Your task to perform on an android device: turn off improve location accuracy Image 0: 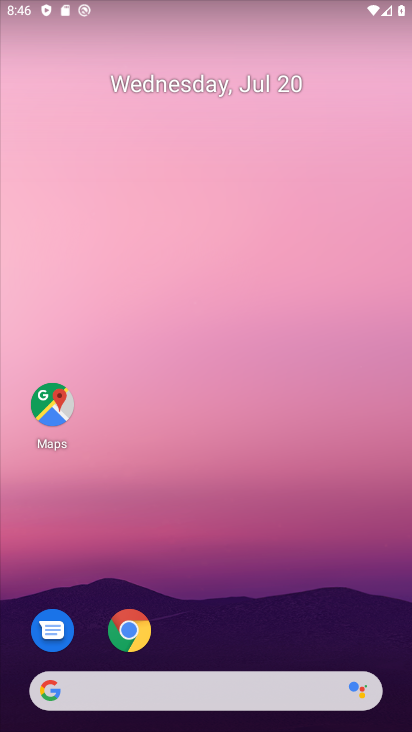
Step 0: drag from (203, 699) to (205, 211)
Your task to perform on an android device: turn off improve location accuracy Image 1: 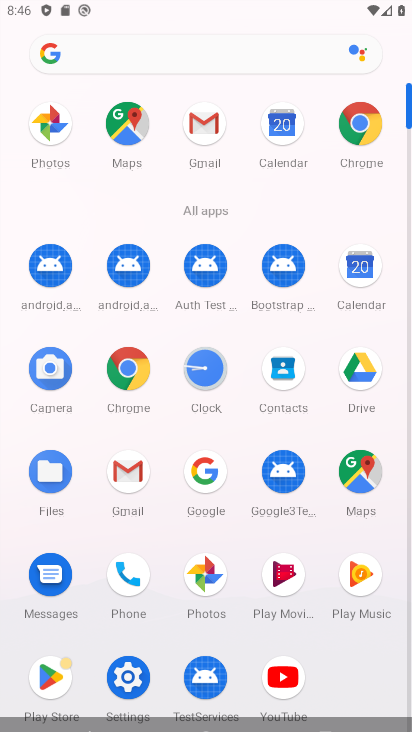
Step 1: click (119, 666)
Your task to perform on an android device: turn off improve location accuracy Image 2: 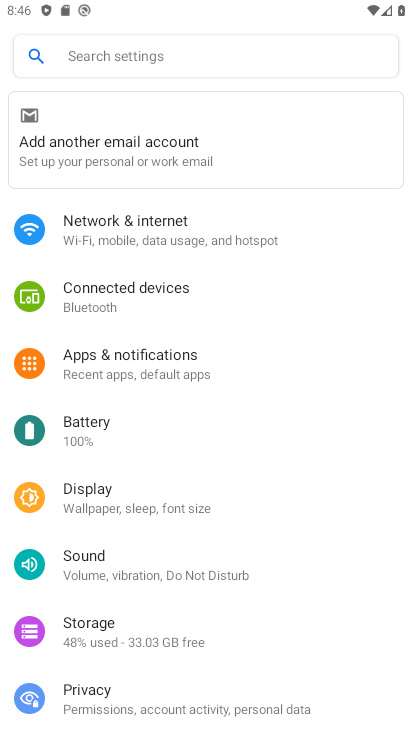
Step 2: drag from (111, 671) to (111, 319)
Your task to perform on an android device: turn off improve location accuracy Image 3: 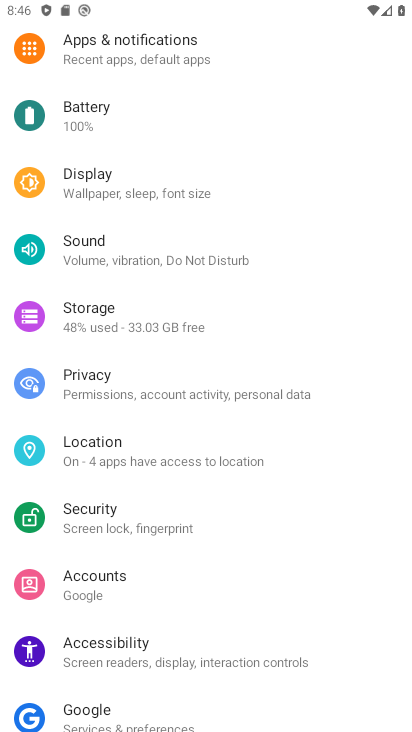
Step 3: click (105, 446)
Your task to perform on an android device: turn off improve location accuracy Image 4: 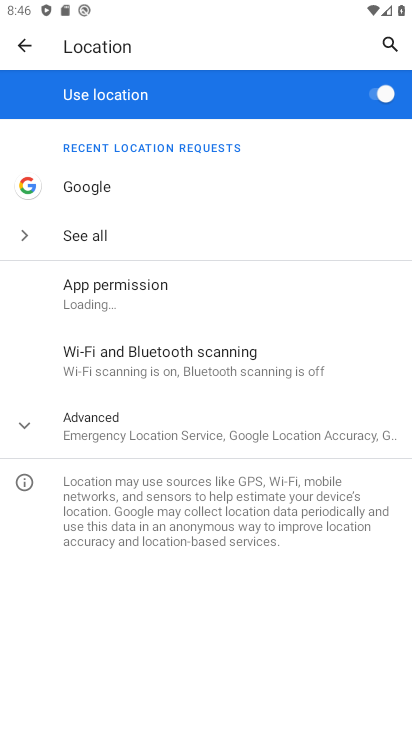
Step 4: click (96, 415)
Your task to perform on an android device: turn off improve location accuracy Image 5: 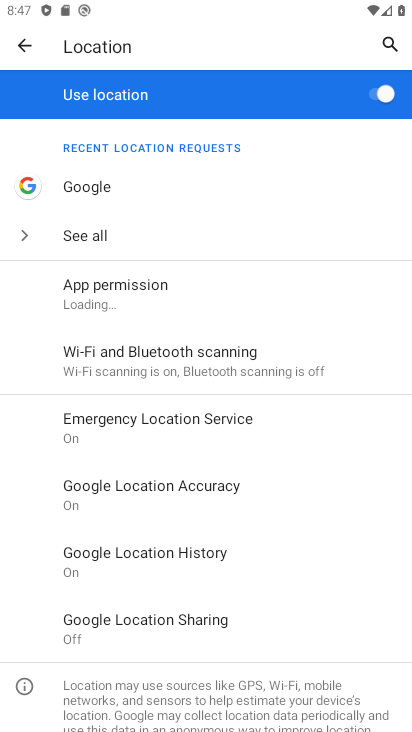
Step 5: click (217, 489)
Your task to perform on an android device: turn off improve location accuracy Image 6: 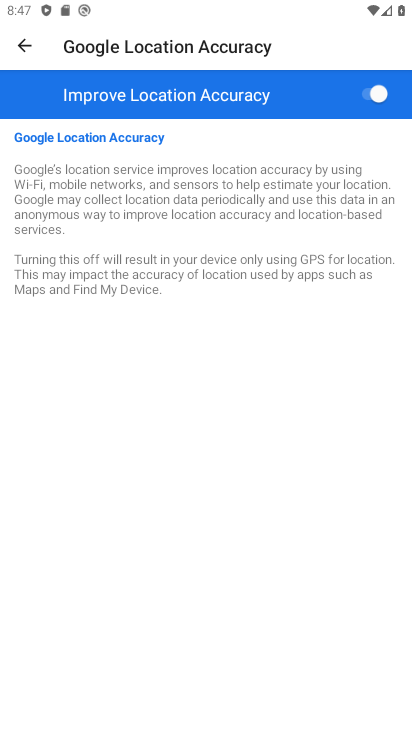
Step 6: click (370, 90)
Your task to perform on an android device: turn off improve location accuracy Image 7: 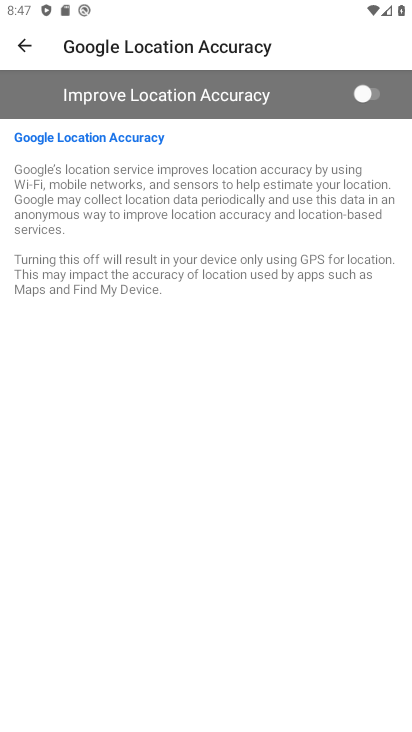
Step 7: task complete